Your task to perform on an android device: all mails in gmail Image 0: 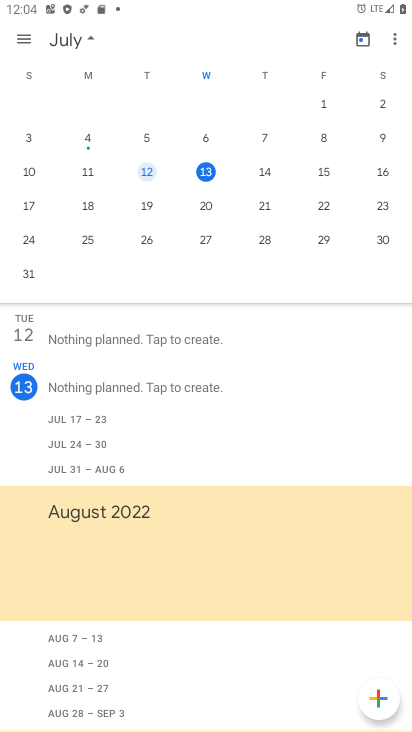
Step 0: press home button
Your task to perform on an android device: all mails in gmail Image 1: 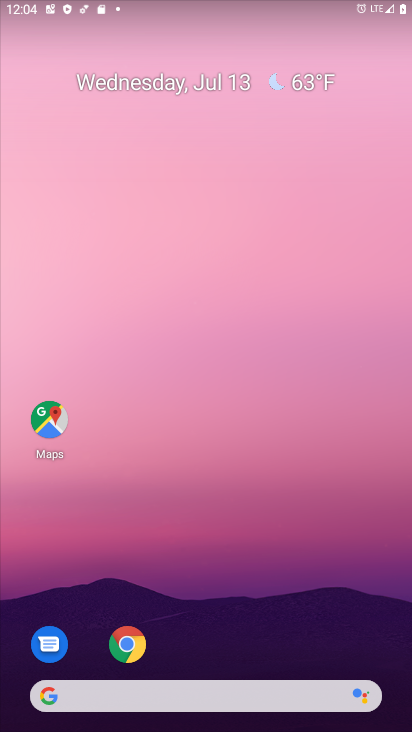
Step 1: drag from (170, 690) to (240, 276)
Your task to perform on an android device: all mails in gmail Image 2: 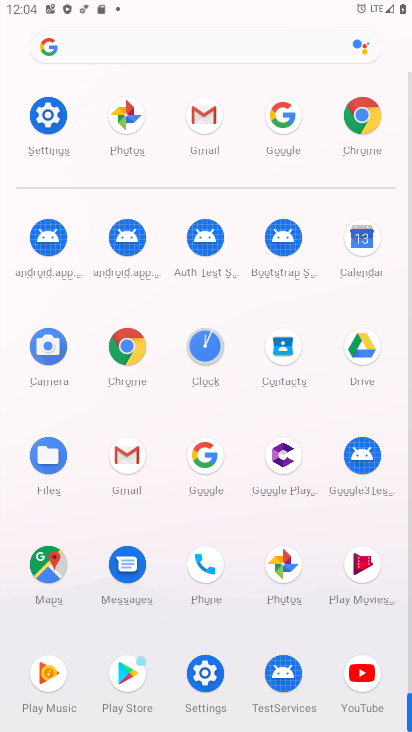
Step 2: click (203, 111)
Your task to perform on an android device: all mails in gmail Image 3: 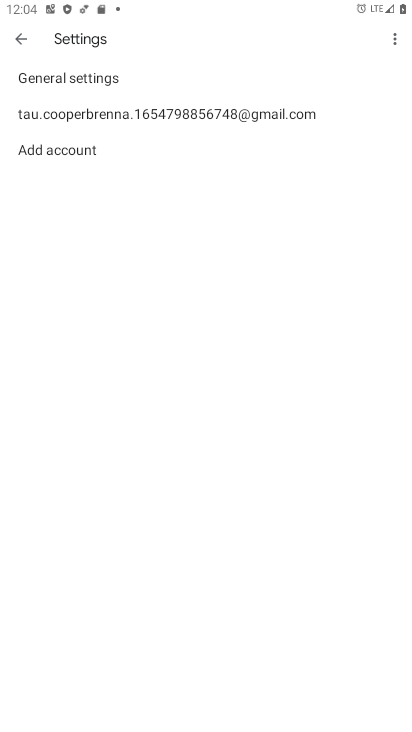
Step 3: press back button
Your task to perform on an android device: all mails in gmail Image 4: 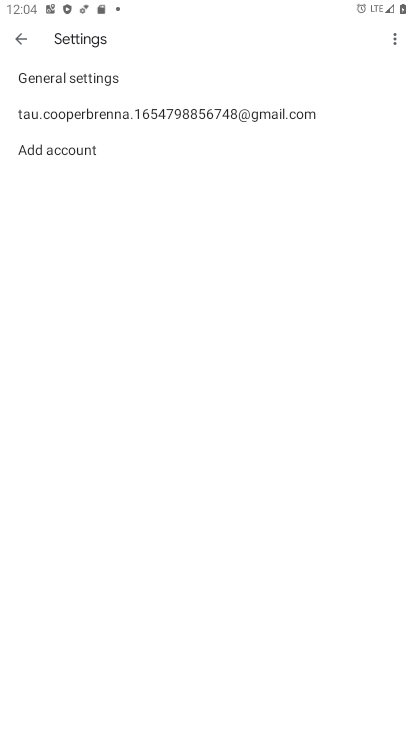
Step 4: press back button
Your task to perform on an android device: all mails in gmail Image 5: 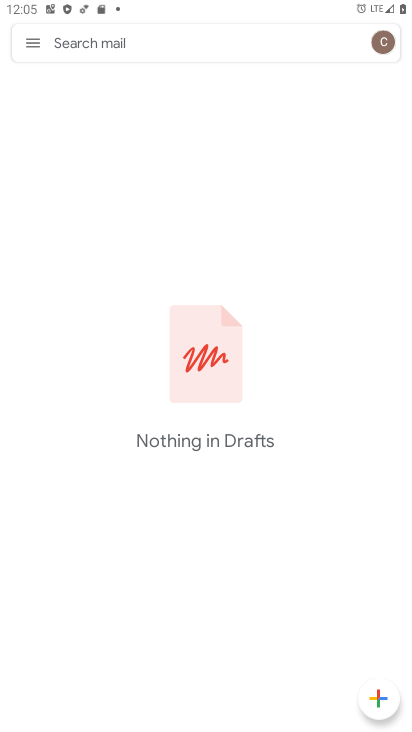
Step 5: click (36, 46)
Your task to perform on an android device: all mails in gmail Image 6: 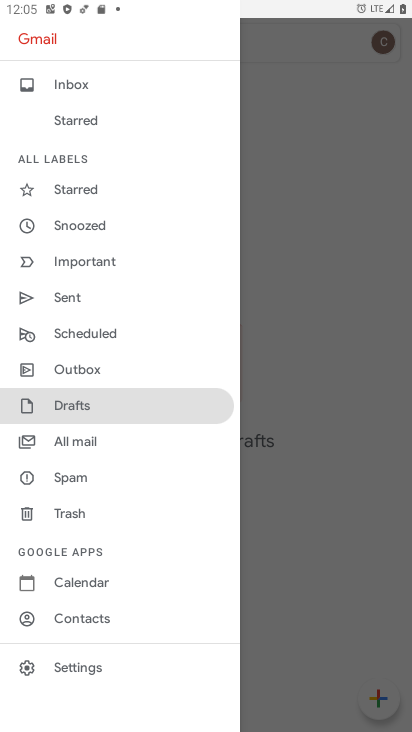
Step 6: click (106, 442)
Your task to perform on an android device: all mails in gmail Image 7: 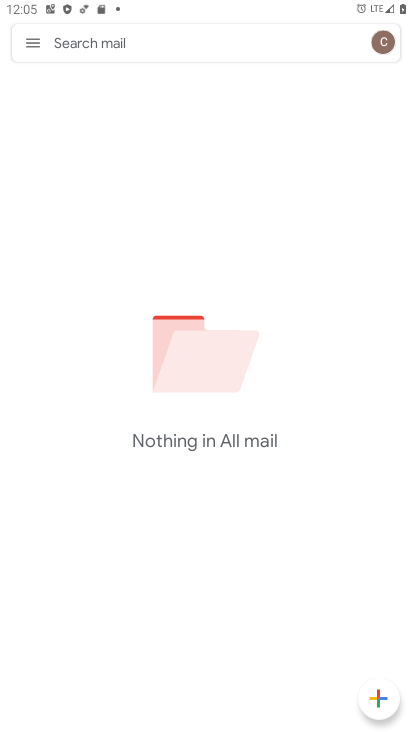
Step 7: task complete